Your task to perform on an android device: change notification settings in the gmail app Image 0: 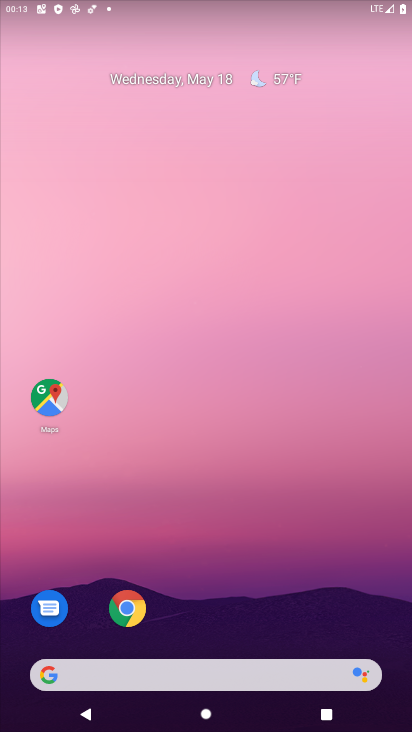
Step 0: drag from (226, 529) to (139, 87)
Your task to perform on an android device: change notification settings in the gmail app Image 1: 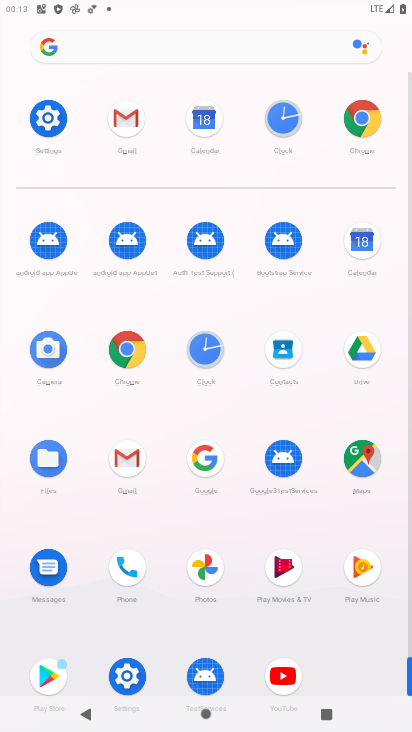
Step 1: click (129, 116)
Your task to perform on an android device: change notification settings in the gmail app Image 2: 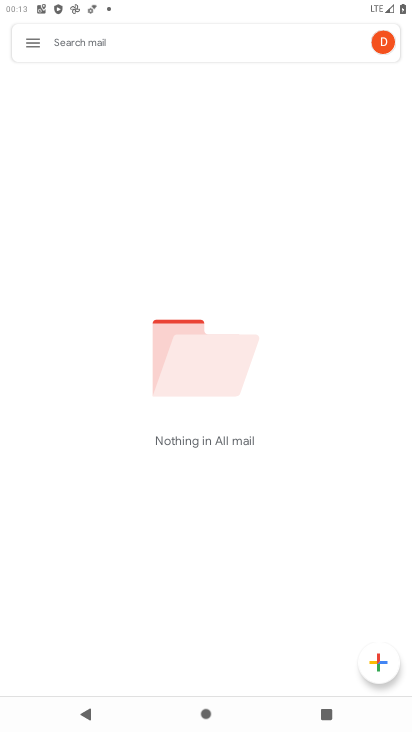
Step 2: click (28, 47)
Your task to perform on an android device: change notification settings in the gmail app Image 3: 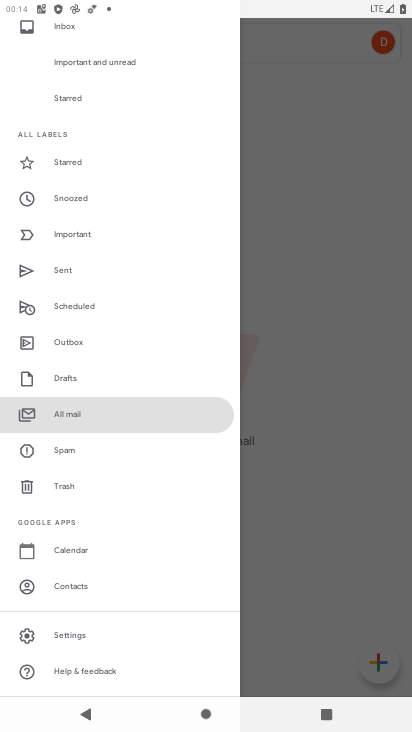
Step 3: click (67, 638)
Your task to perform on an android device: change notification settings in the gmail app Image 4: 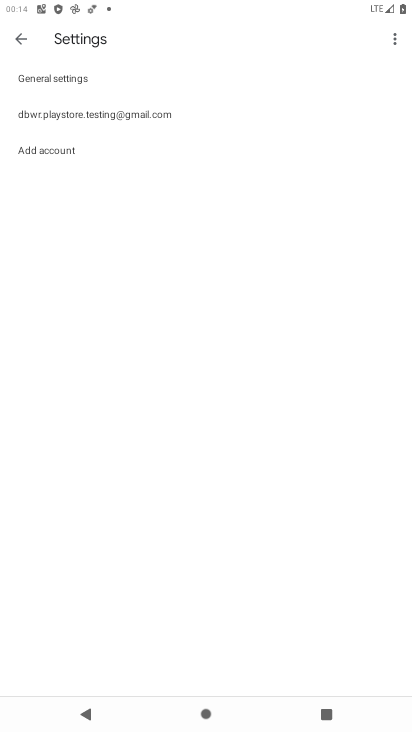
Step 4: click (55, 75)
Your task to perform on an android device: change notification settings in the gmail app Image 5: 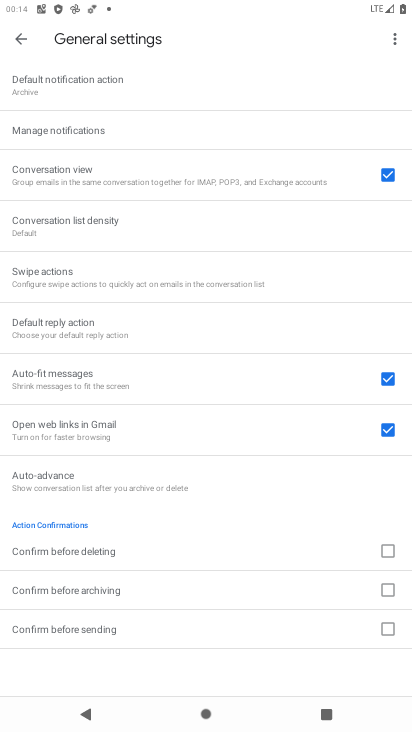
Step 5: click (76, 139)
Your task to perform on an android device: change notification settings in the gmail app Image 6: 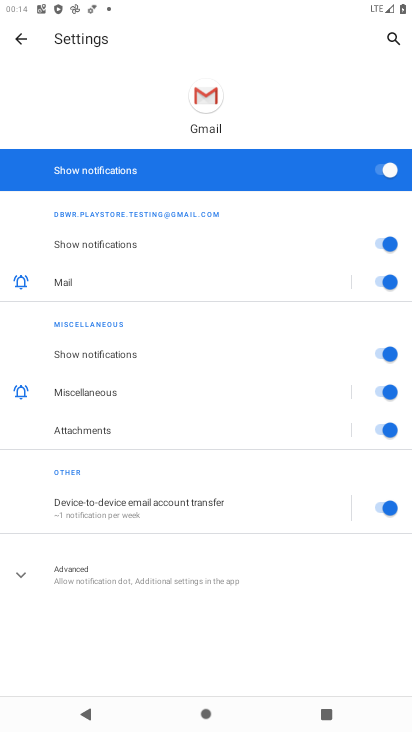
Step 6: click (387, 165)
Your task to perform on an android device: change notification settings in the gmail app Image 7: 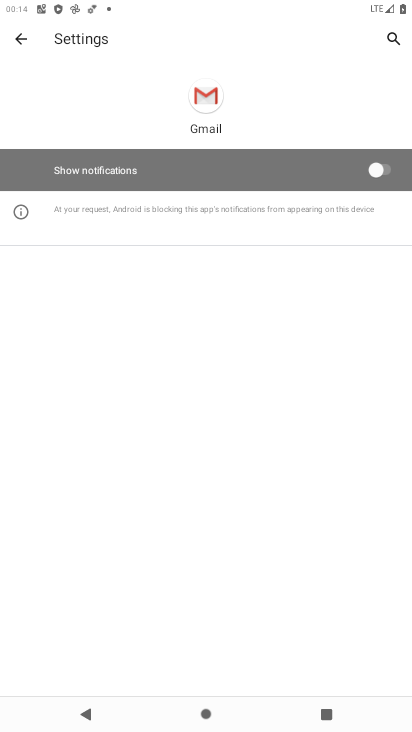
Step 7: task complete